Your task to perform on an android device: star an email in the gmail app Image 0: 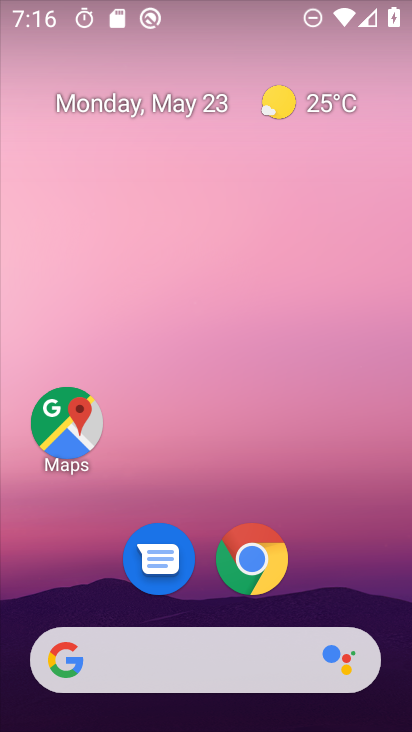
Step 0: drag from (386, 611) to (322, 92)
Your task to perform on an android device: star an email in the gmail app Image 1: 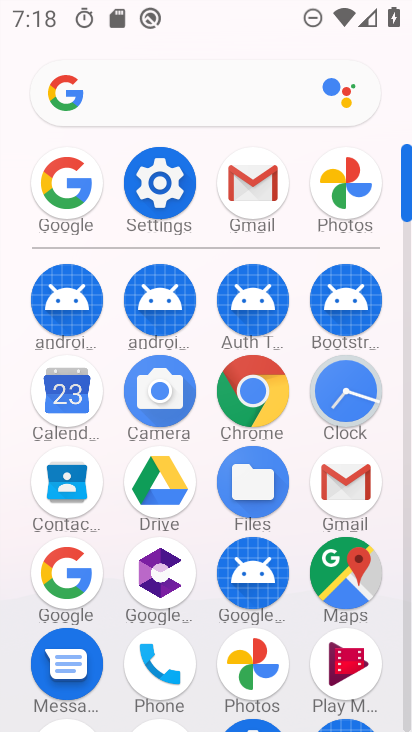
Step 1: click (338, 478)
Your task to perform on an android device: star an email in the gmail app Image 2: 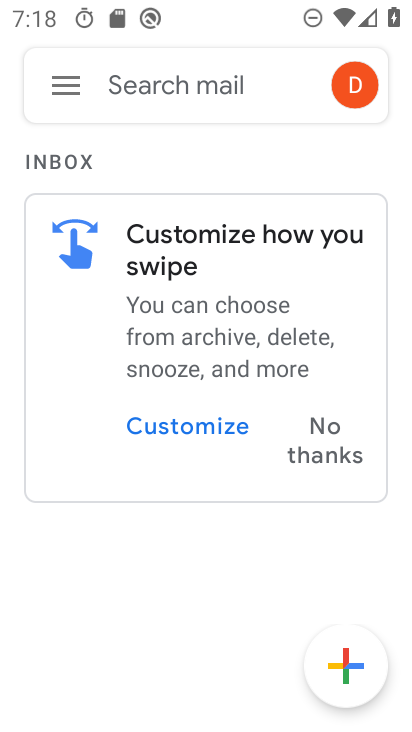
Step 2: task complete